Your task to perform on an android device: Search for "sony triple a" on ebay, select the first entry, and add it to the cart. Image 0: 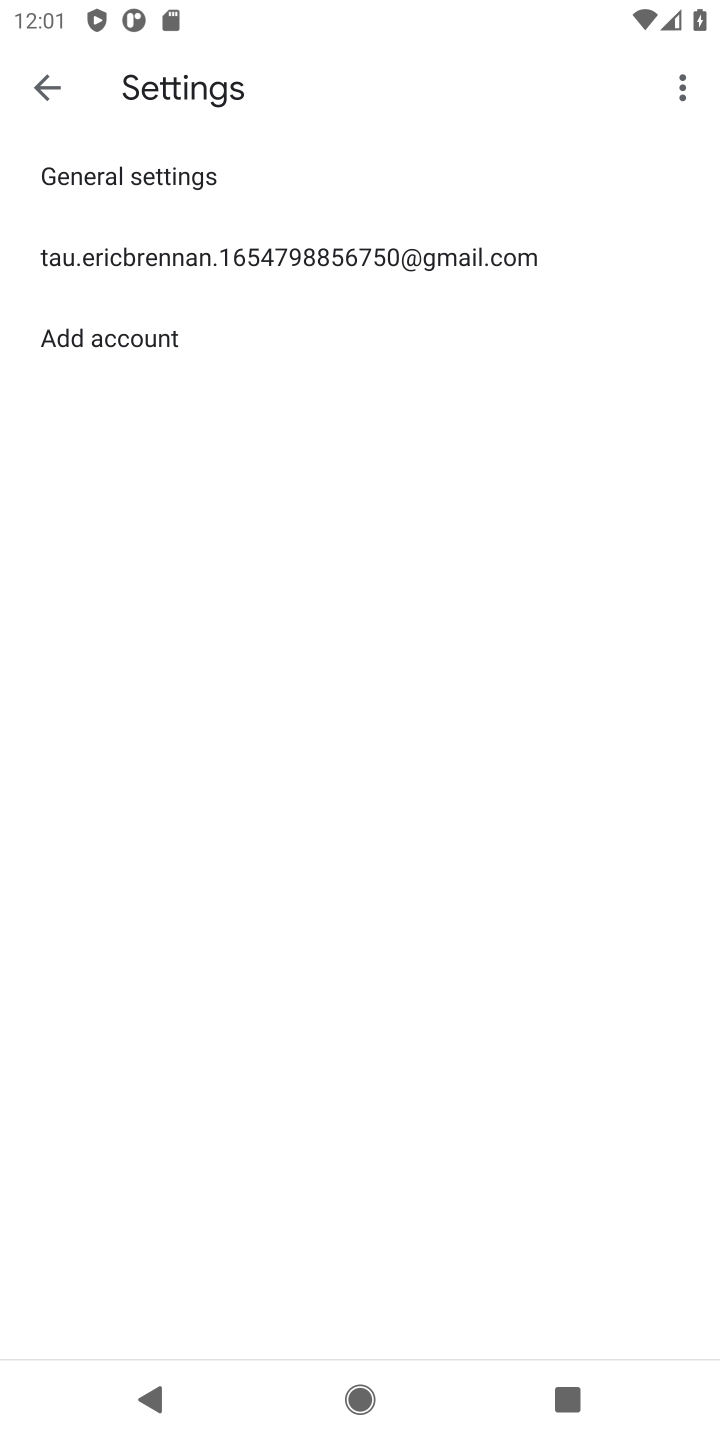
Step 0: press home button
Your task to perform on an android device: Search for "sony triple a" on ebay, select the first entry, and add it to the cart. Image 1: 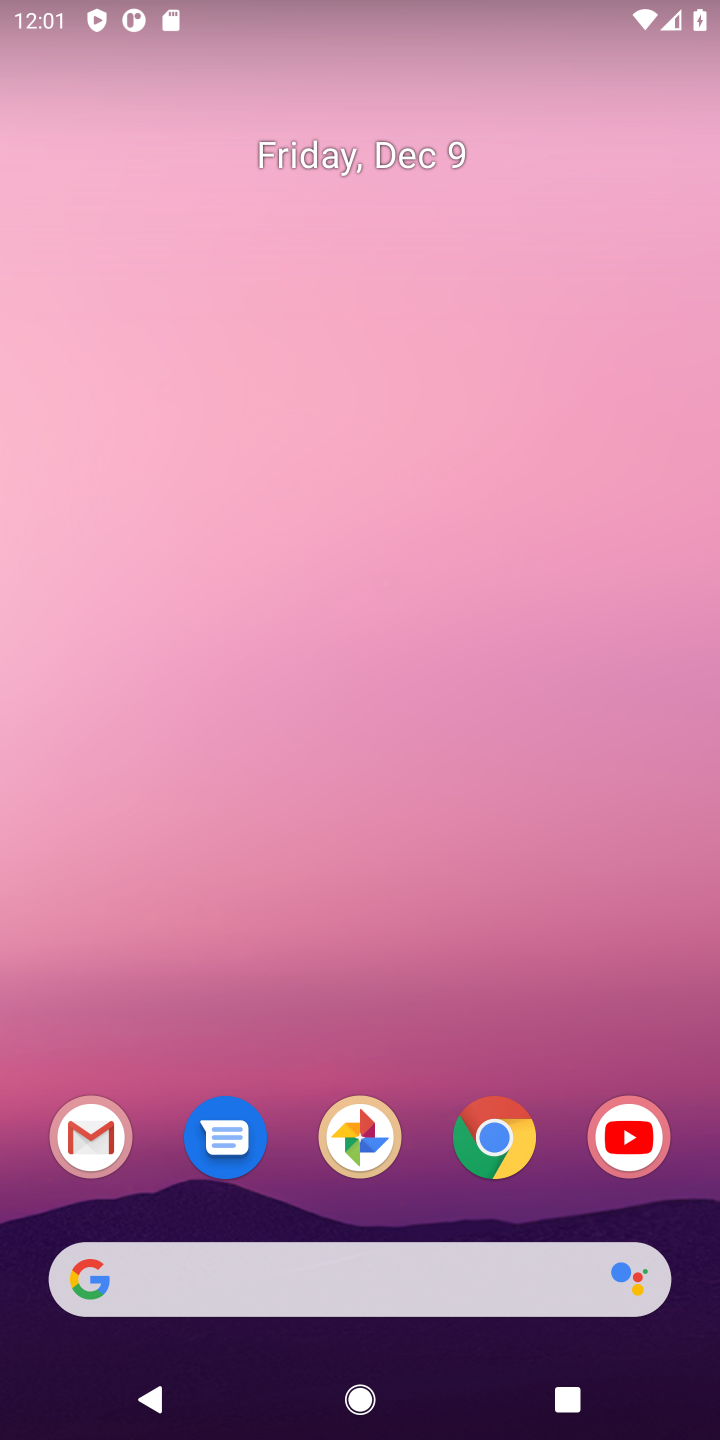
Step 1: click (496, 1148)
Your task to perform on an android device: Search for "sony triple a" on ebay, select the first entry, and add it to the cart. Image 2: 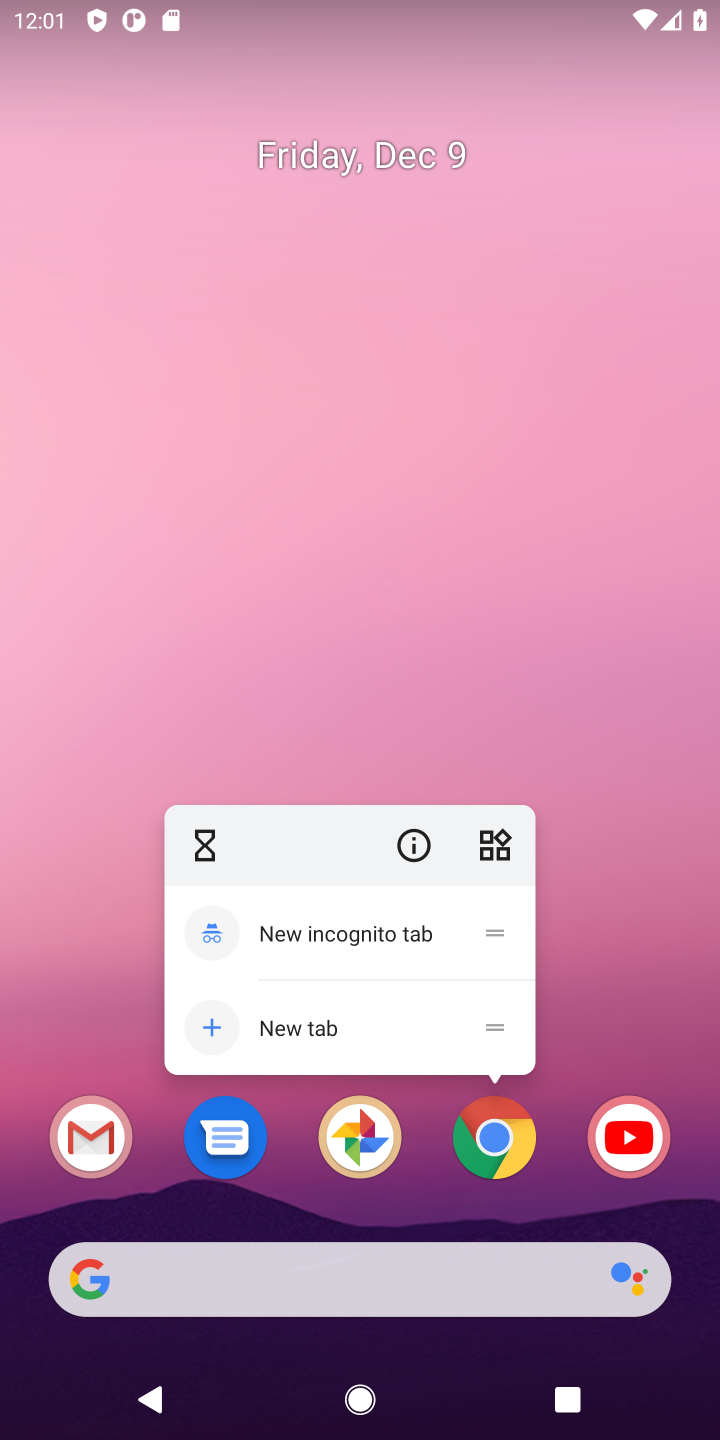
Step 2: click (496, 1148)
Your task to perform on an android device: Search for "sony triple a" on ebay, select the first entry, and add it to the cart. Image 3: 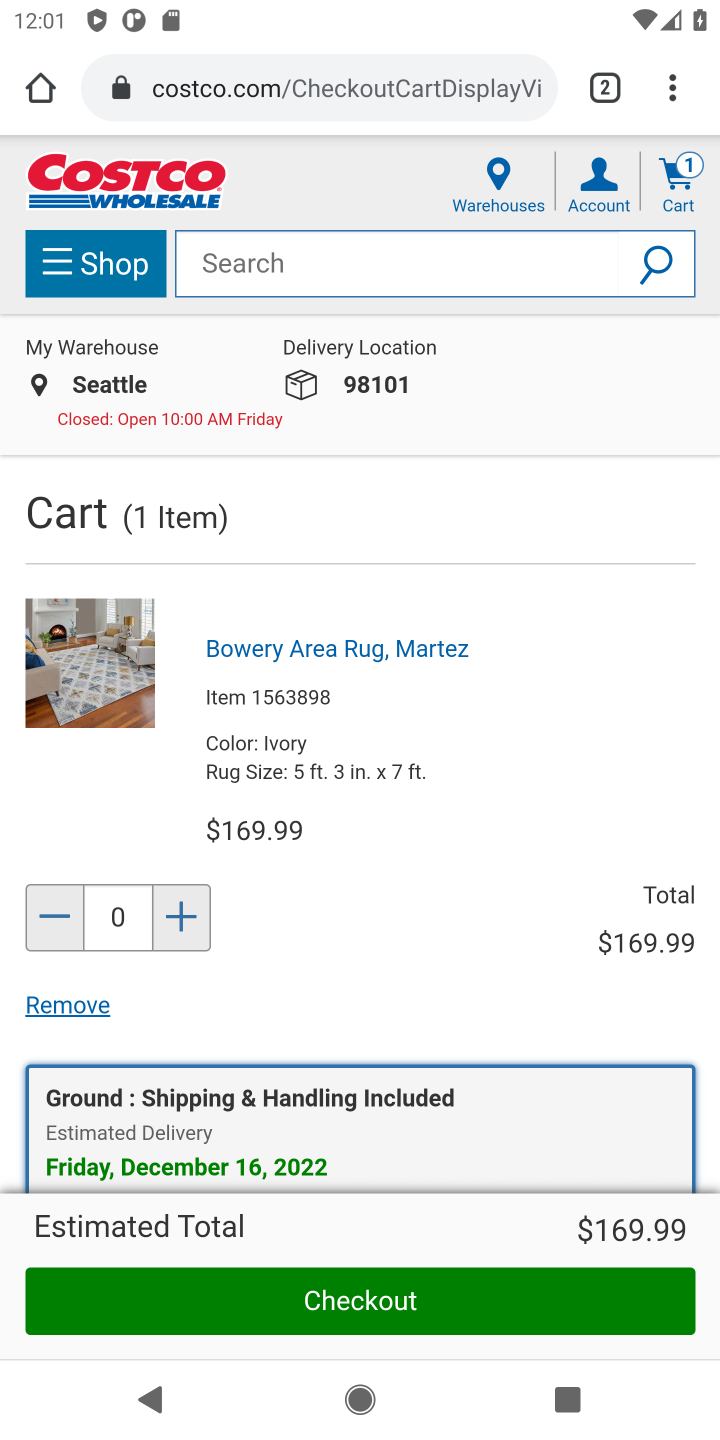
Step 3: click (334, 89)
Your task to perform on an android device: Search for "sony triple a" on ebay, select the first entry, and add it to the cart. Image 4: 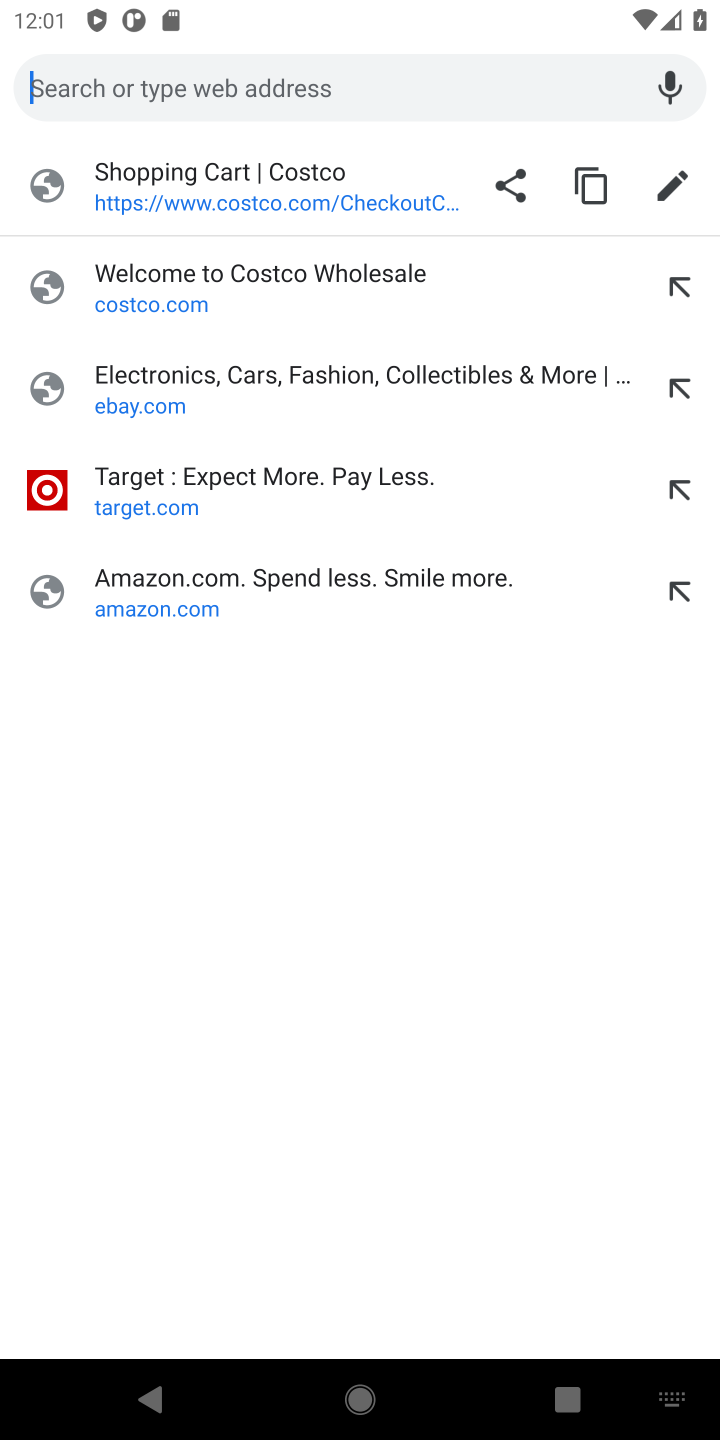
Step 4: click (308, 378)
Your task to perform on an android device: Search for "sony triple a" on ebay, select the first entry, and add it to the cart. Image 5: 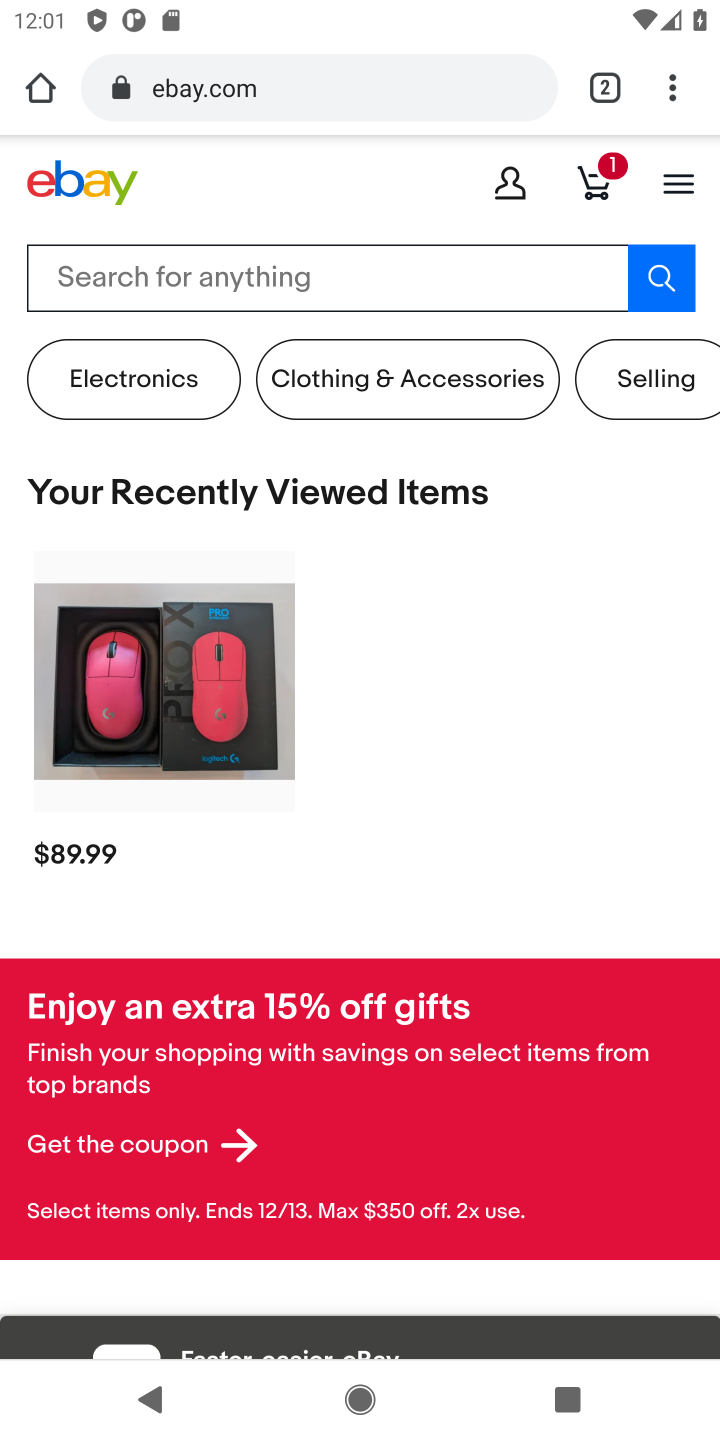
Step 5: click (376, 280)
Your task to perform on an android device: Search for "sony triple a" on ebay, select the first entry, and add it to the cart. Image 6: 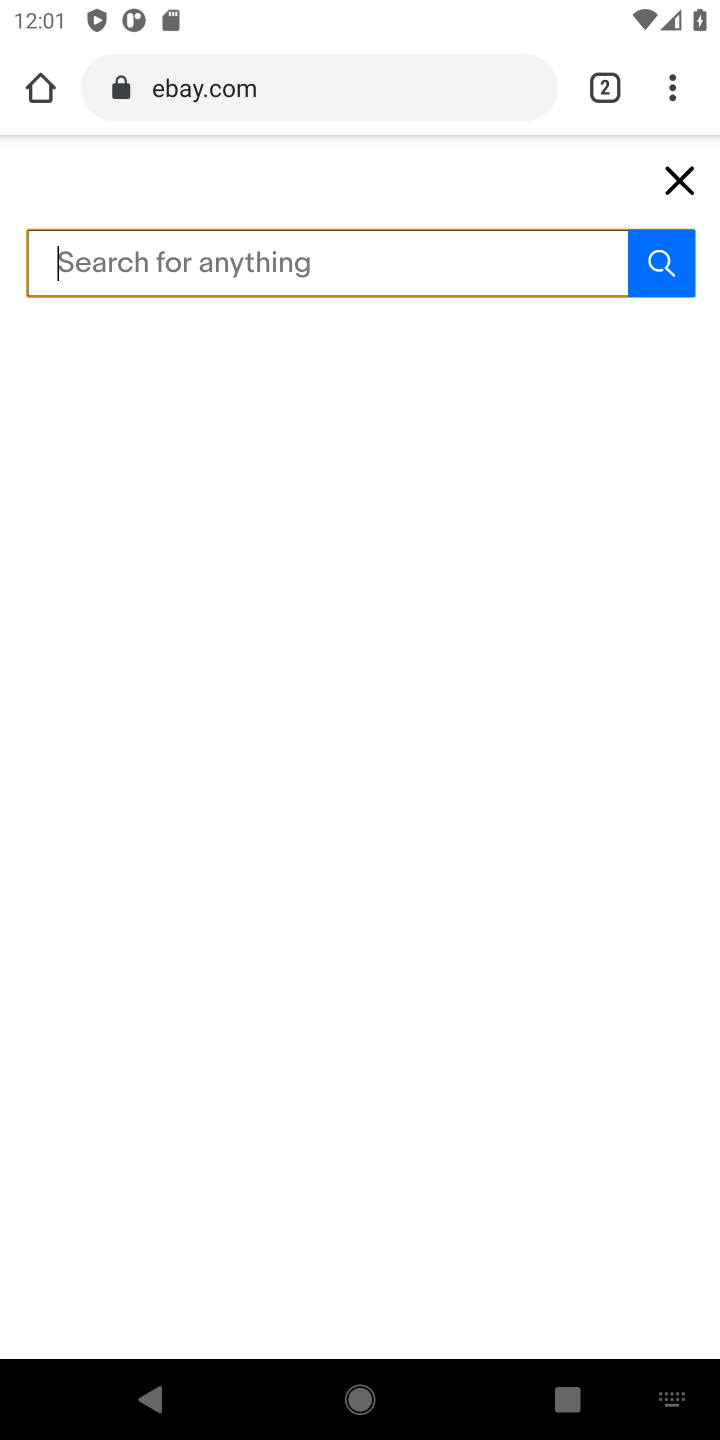
Step 6: type "SONY TRIPLE A"
Your task to perform on an android device: Search for "sony triple a" on ebay, select the first entry, and add it to the cart. Image 7: 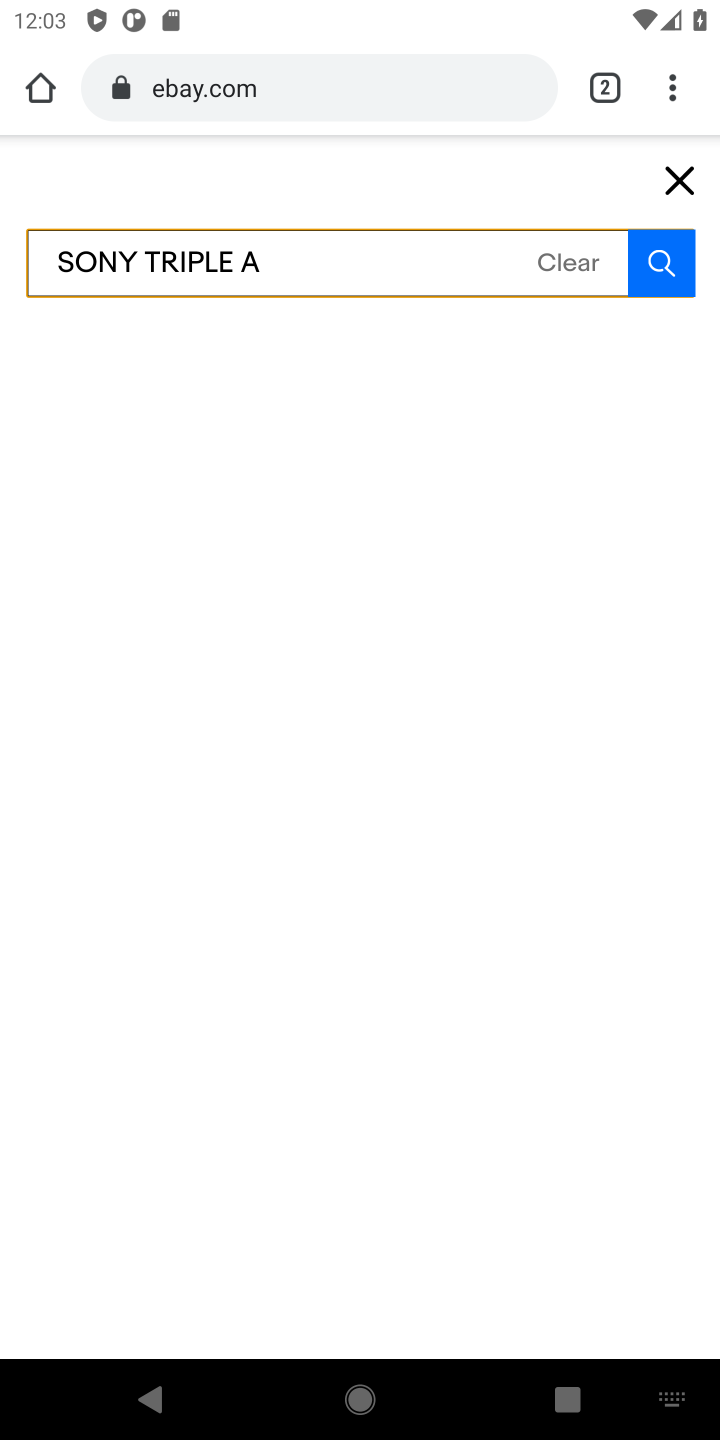
Step 7: click (660, 257)
Your task to perform on an android device: Search for "sony triple a" on ebay, select the first entry, and add it to the cart. Image 8: 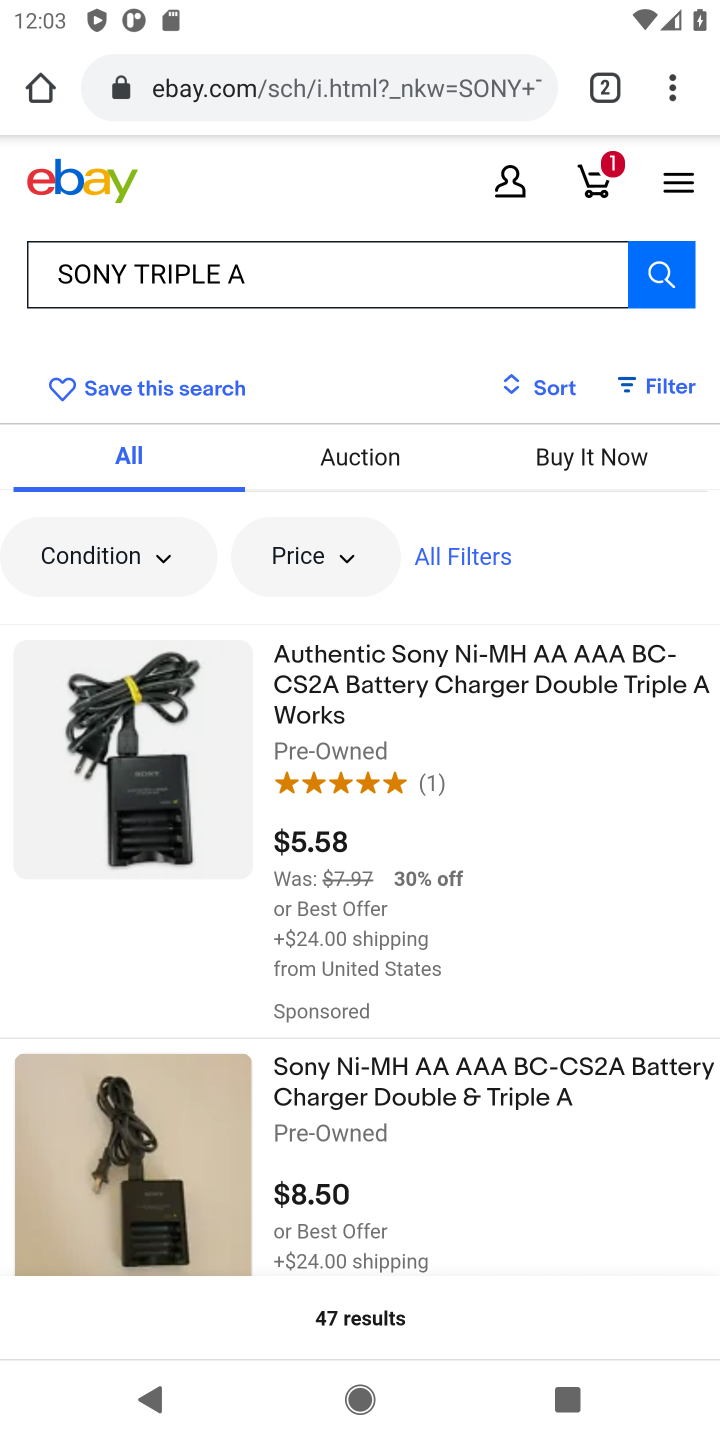
Step 8: click (513, 834)
Your task to perform on an android device: Search for "sony triple a" on ebay, select the first entry, and add it to the cart. Image 9: 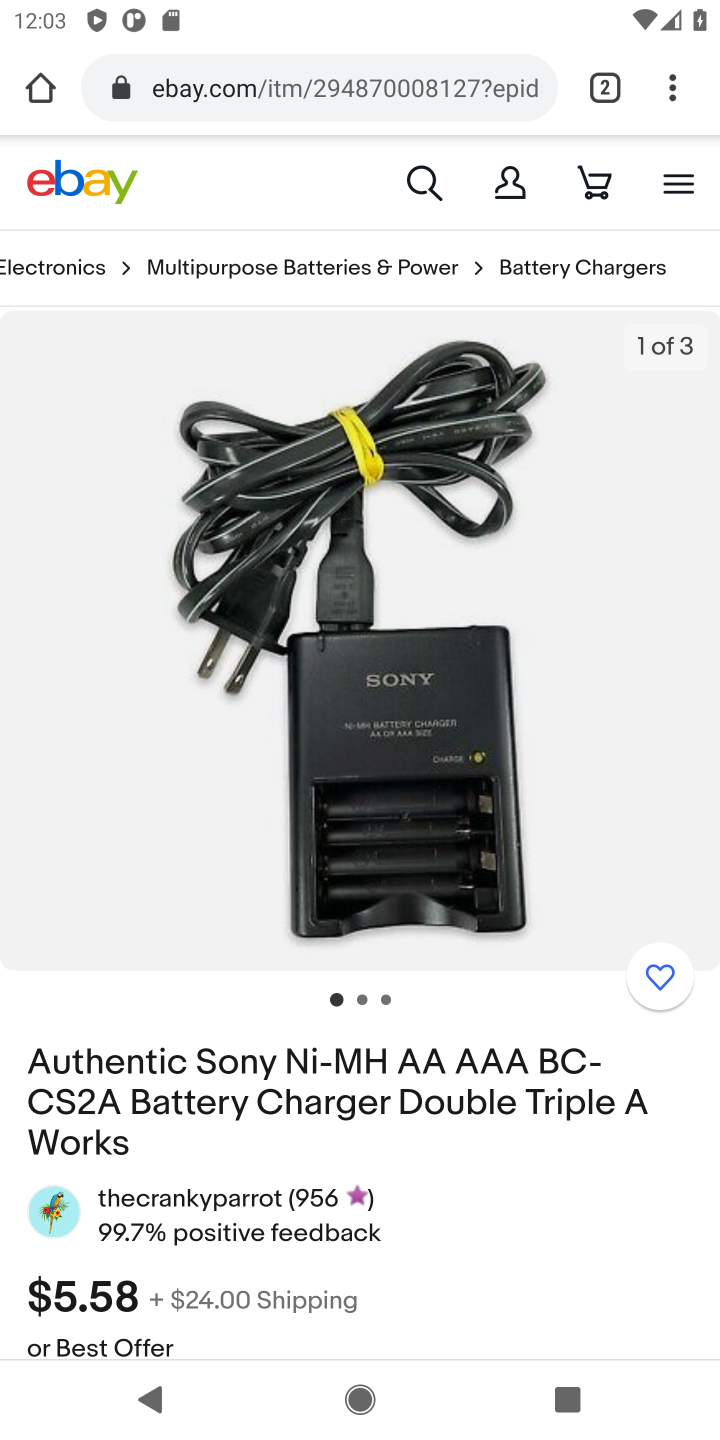
Step 9: drag from (555, 1212) to (522, 321)
Your task to perform on an android device: Search for "sony triple a" on ebay, select the first entry, and add it to the cart. Image 10: 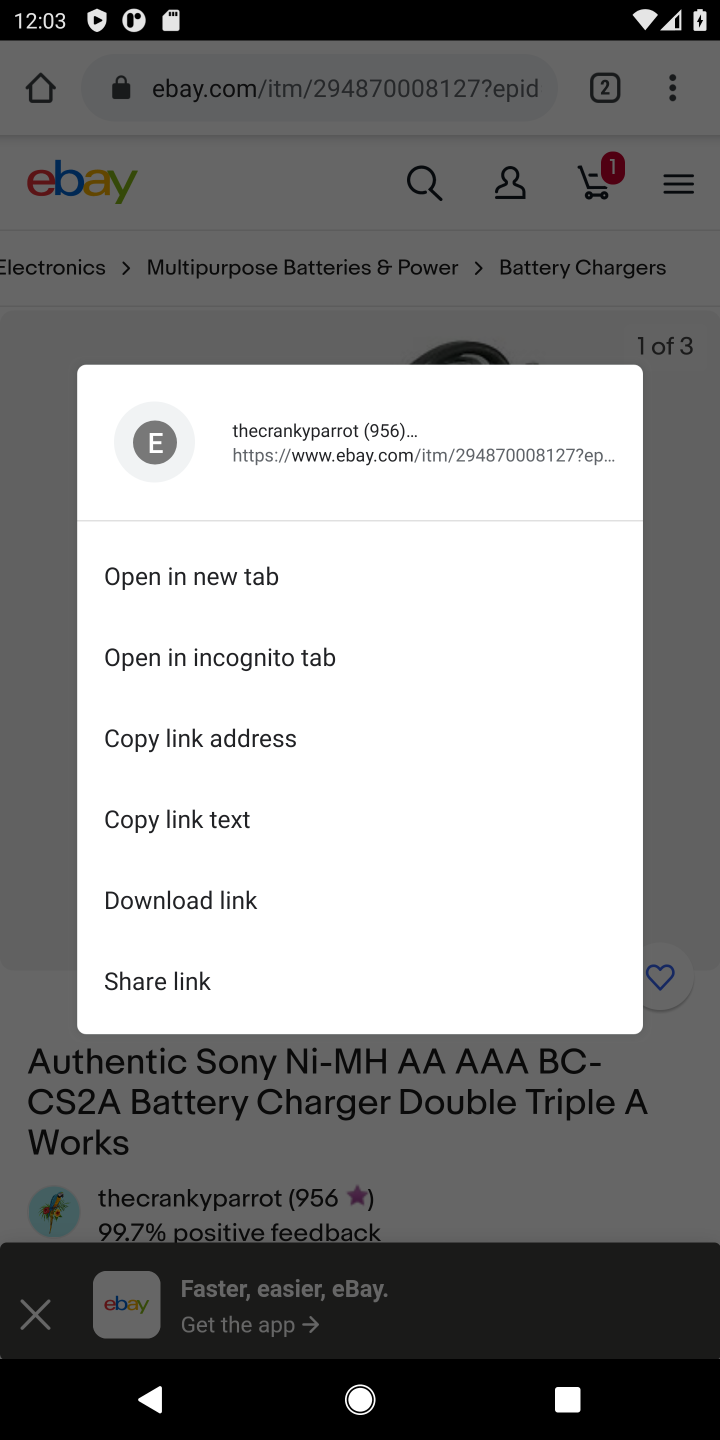
Step 10: click (508, 1185)
Your task to perform on an android device: Search for "sony triple a" on ebay, select the first entry, and add it to the cart. Image 11: 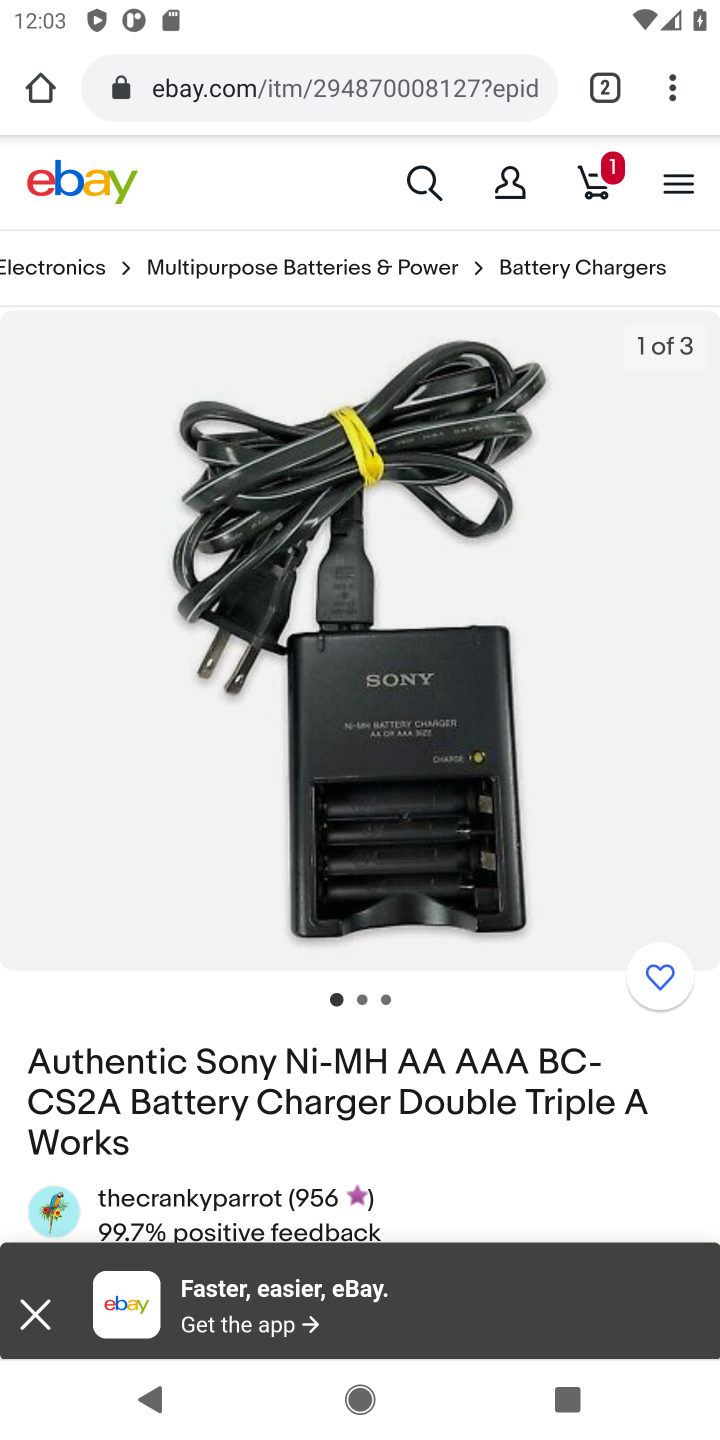
Step 11: drag from (508, 1185) to (463, 313)
Your task to perform on an android device: Search for "sony triple a" on ebay, select the first entry, and add it to the cart. Image 12: 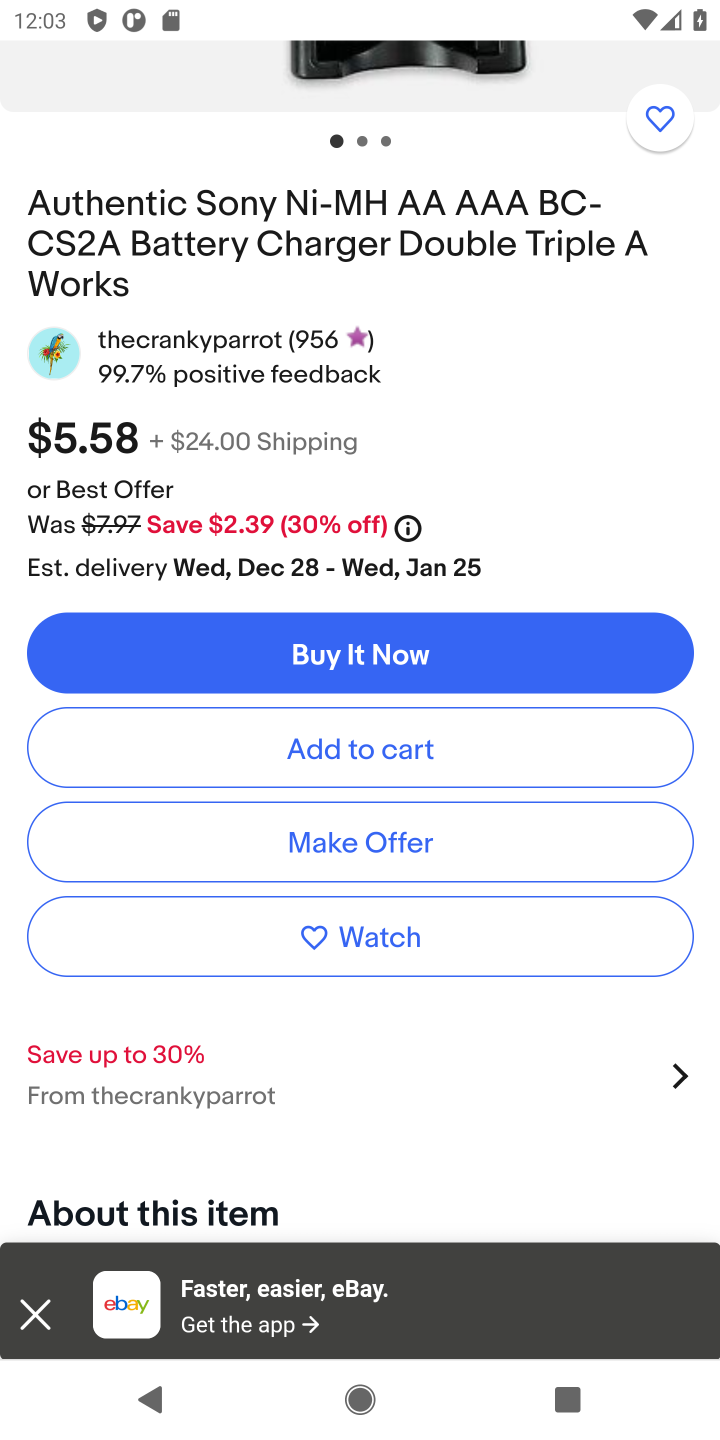
Step 12: click (374, 756)
Your task to perform on an android device: Search for "sony triple a" on ebay, select the first entry, and add it to the cart. Image 13: 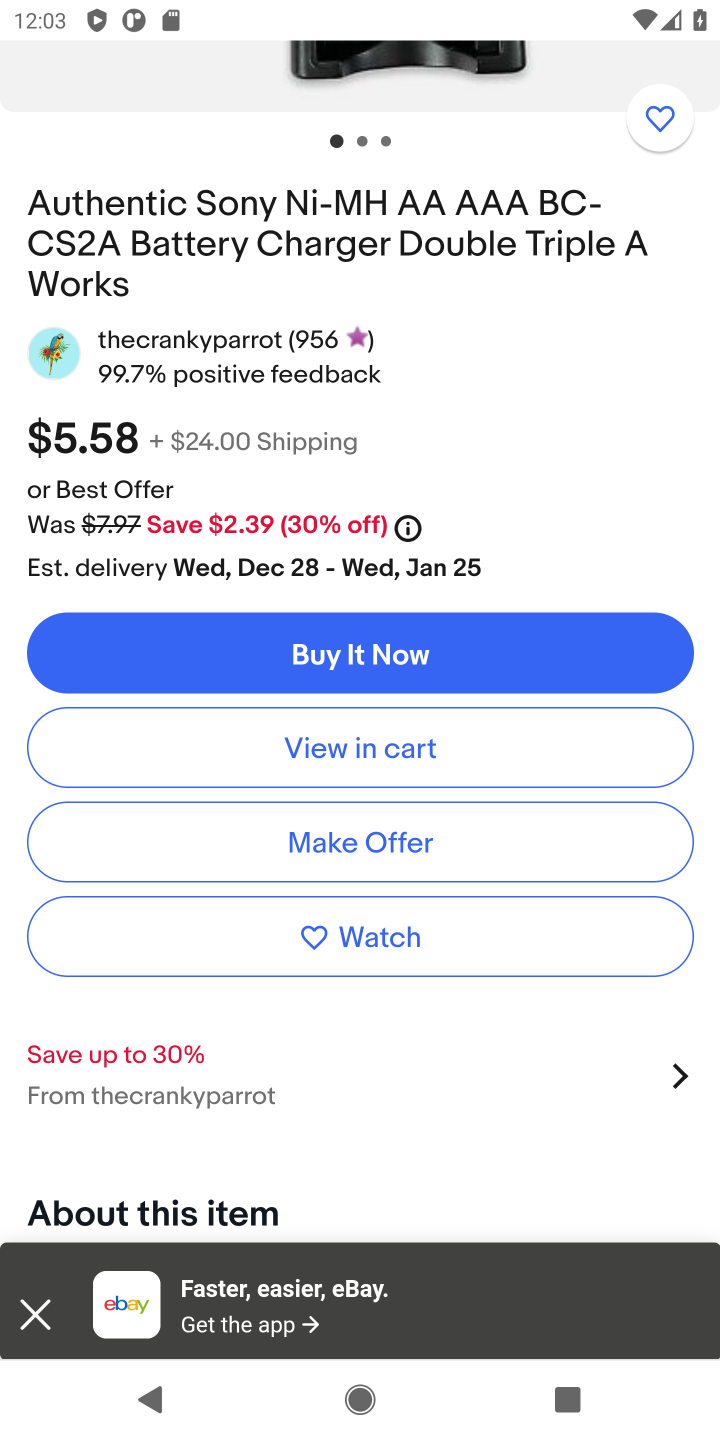
Step 13: click (374, 756)
Your task to perform on an android device: Search for "sony triple a" on ebay, select the first entry, and add it to the cart. Image 14: 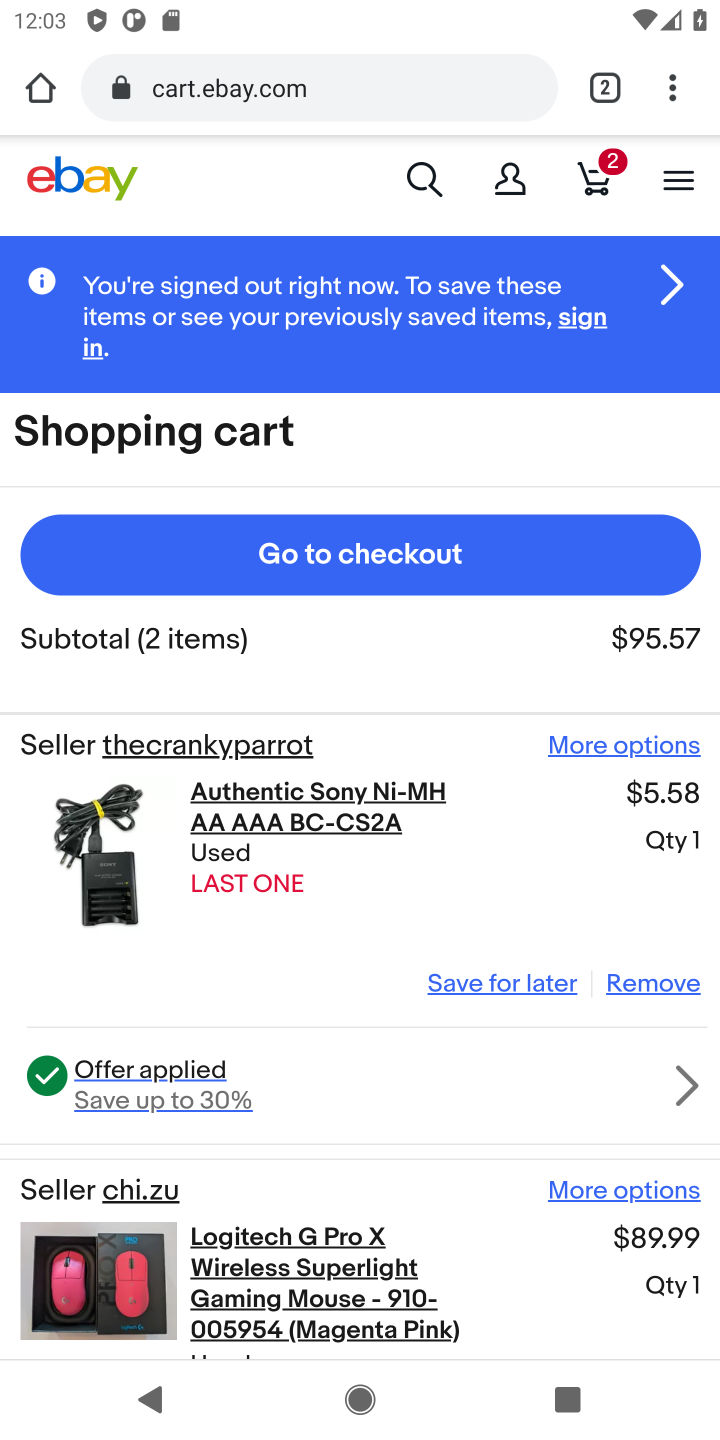
Step 14: click (376, 568)
Your task to perform on an android device: Search for "sony triple a" on ebay, select the first entry, and add it to the cart. Image 15: 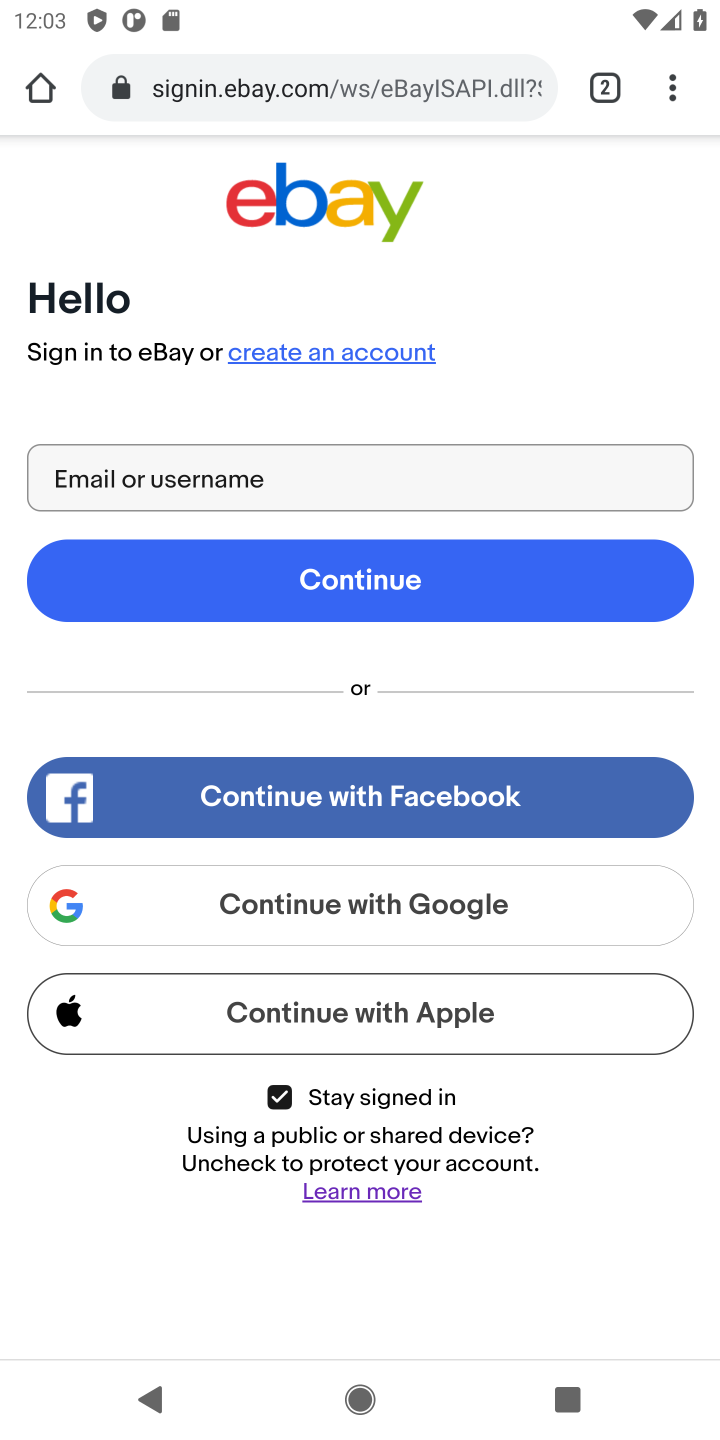
Step 15: task complete